Your task to perform on an android device: Do I have any events today? Image 0: 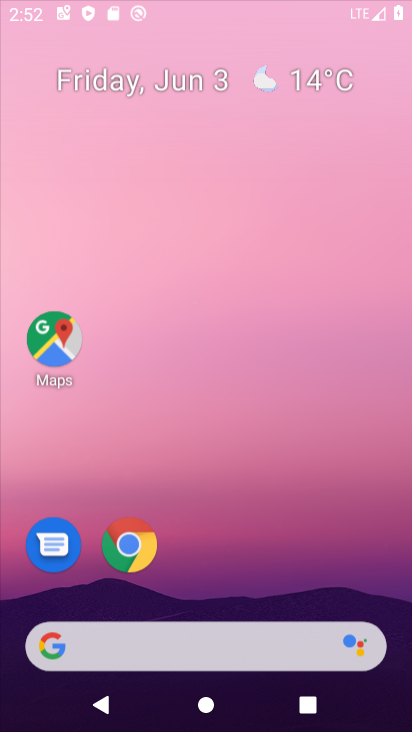
Step 0: click (340, 115)
Your task to perform on an android device: Do I have any events today? Image 1: 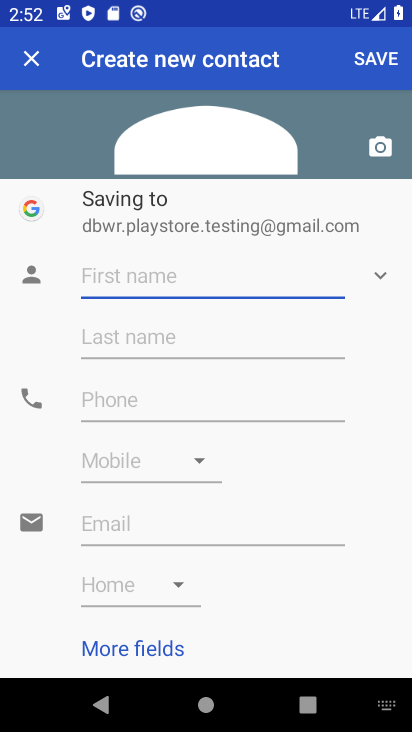
Step 1: press home button
Your task to perform on an android device: Do I have any events today? Image 2: 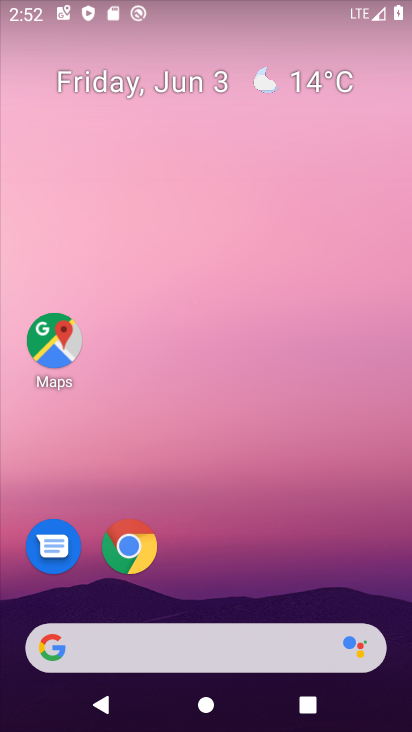
Step 2: drag from (353, 512) to (411, 191)
Your task to perform on an android device: Do I have any events today? Image 3: 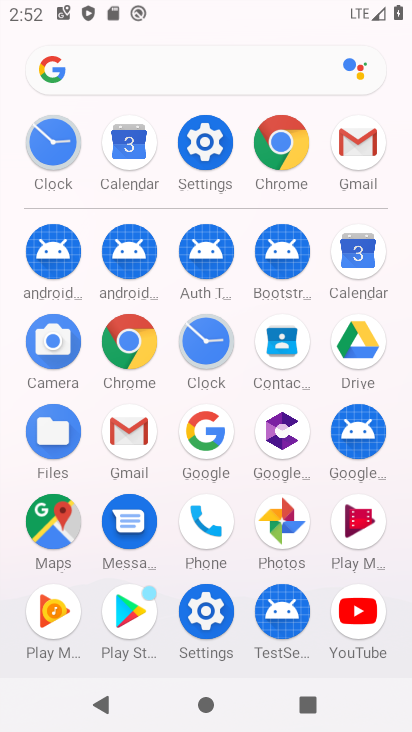
Step 3: click (221, 147)
Your task to perform on an android device: Do I have any events today? Image 4: 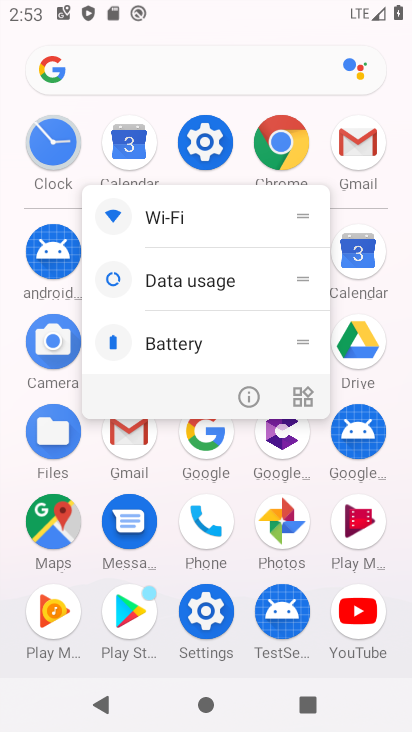
Step 4: click (369, 251)
Your task to perform on an android device: Do I have any events today? Image 5: 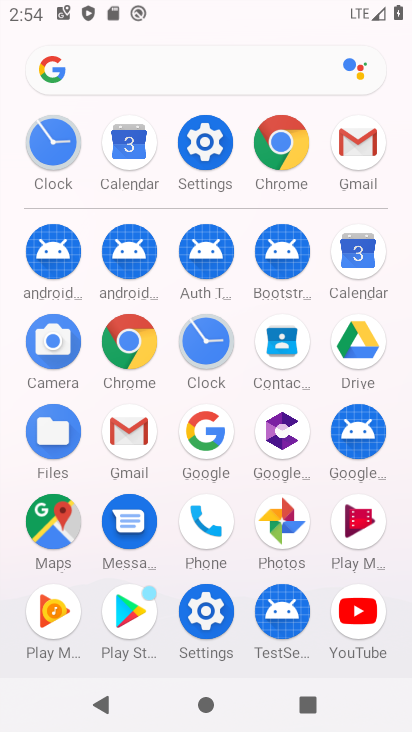
Step 5: click (374, 269)
Your task to perform on an android device: Do I have any events today? Image 6: 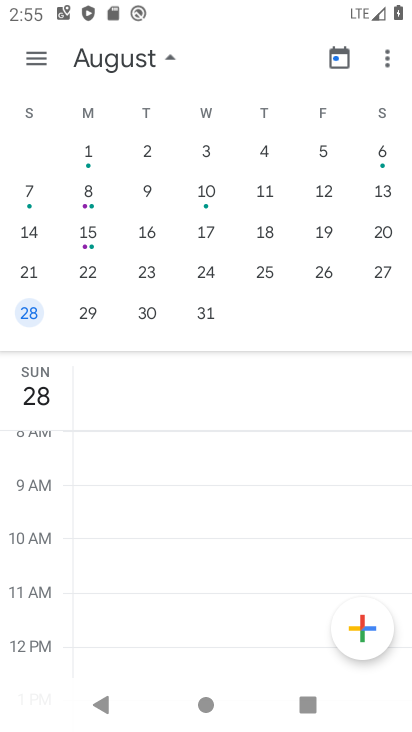
Step 6: task complete